Your task to perform on an android device: open device folders in google photos Image 0: 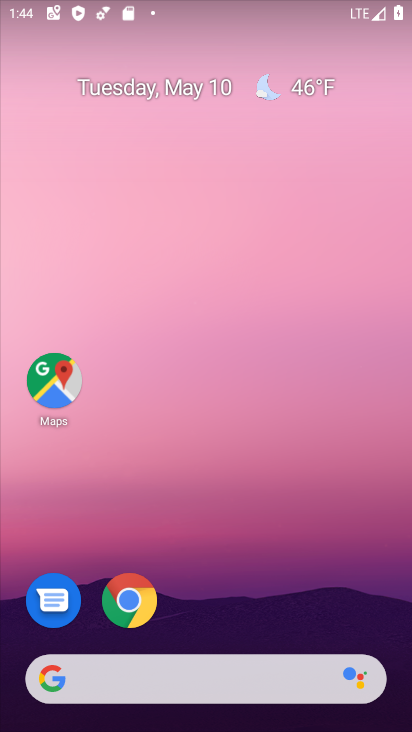
Step 0: drag from (215, 682) to (326, 326)
Your task to perform on an android device: open device folders in google photos Image 1: 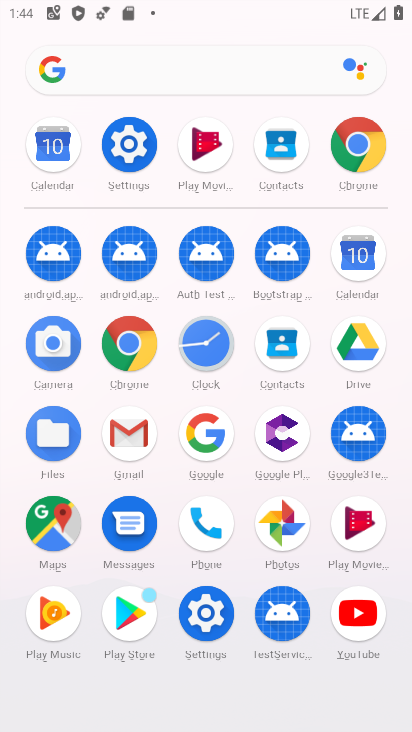
Step 1: click (287, 528)
Your task to perform on an android device: open device folders in google photos Image 2: 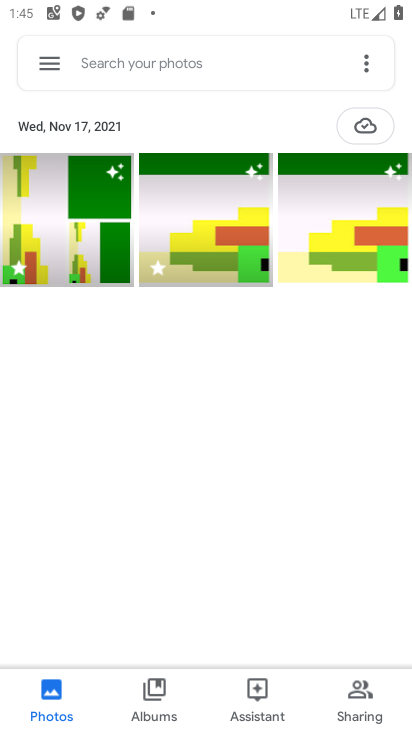
Step 2: click (55, 65)
Your task to perform on an android device: open device folders in google photos Image 3: 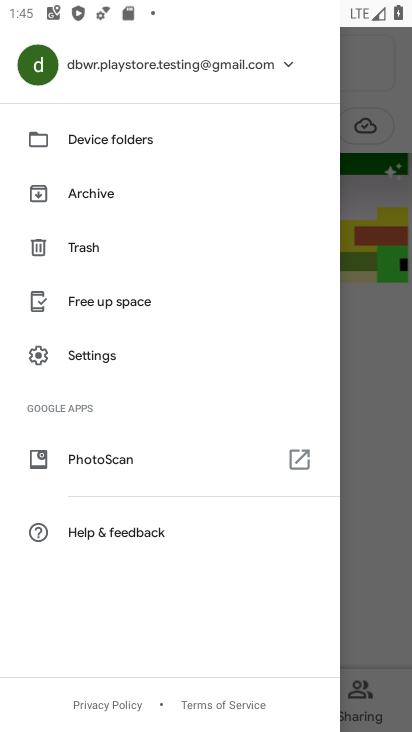
Step 3: click (89, 143)
Your task to perform on an android device: open device folders in google photos Image 4: 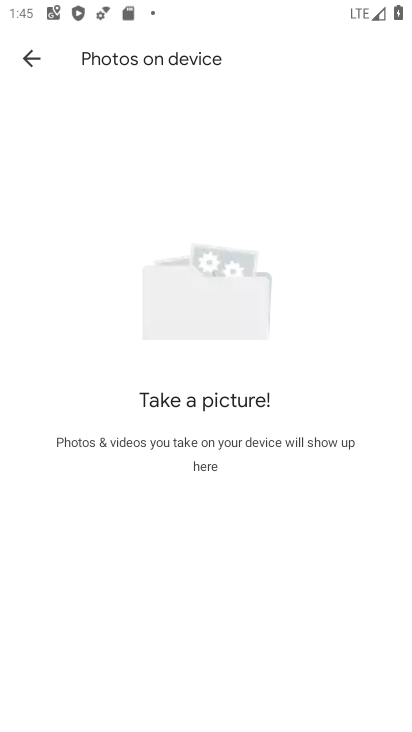
Step 4: task complete